Your task to perform on an android device: Go to network settings Image 0: 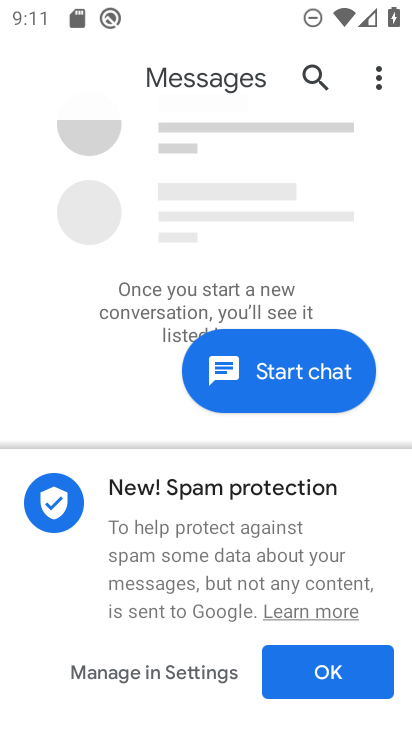
Step 0: press home button
Your task to perform on an android device: Go to network settings Image 1: 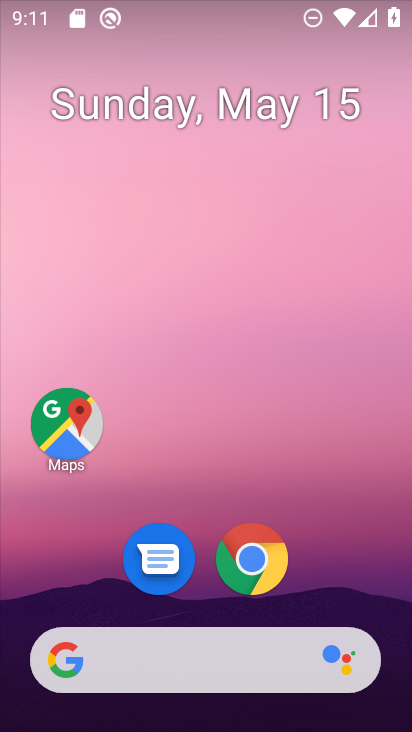
Step 1: drag from (340, 594) to (325, 257)
Your task to perform on an android device: Go to network settings Image 2: 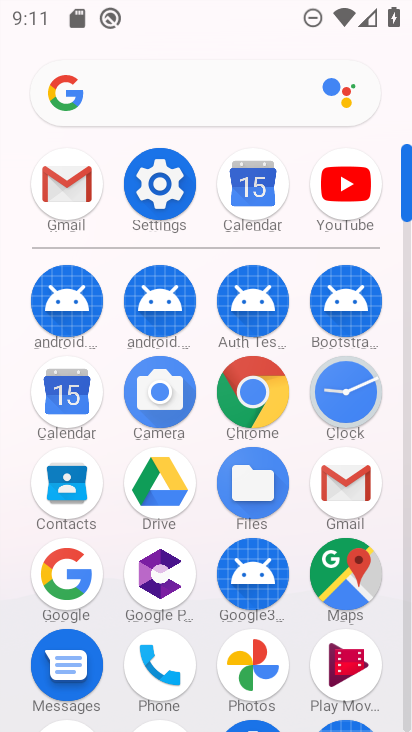
Step 2: click (160, 192)
Your task to perform on an android device: Go to network settings Image 3: 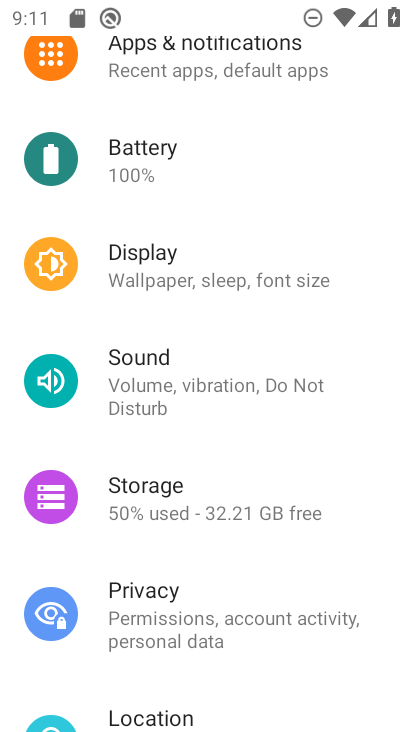
Step 3: drag from (160, 180) to (166, 617)
Your task to perform on an android device: Go to network settings Image 4: 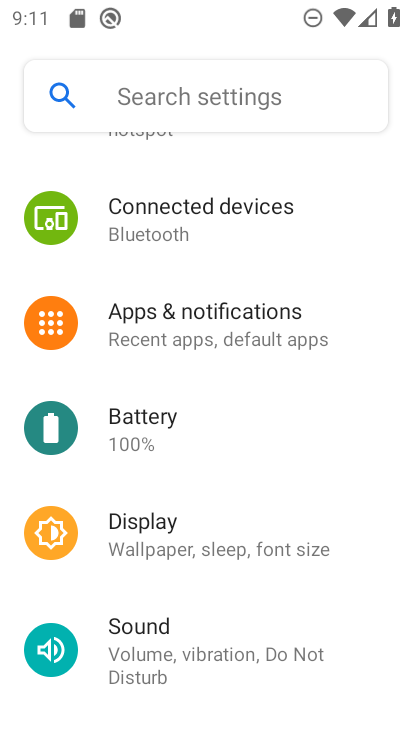
Step 4: drag from (202, 228) to (202, 552)
Your task to perform on an android device: Go to network settings Image 5: 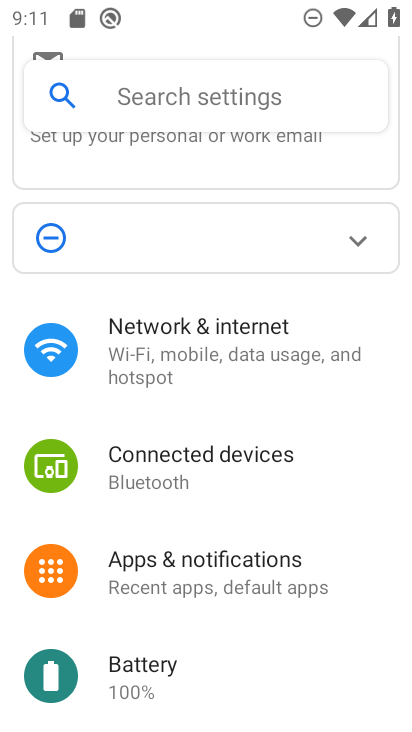
Step 5: click (178, 333)
Your task to perform on an android device: Go to network settings Image 6: 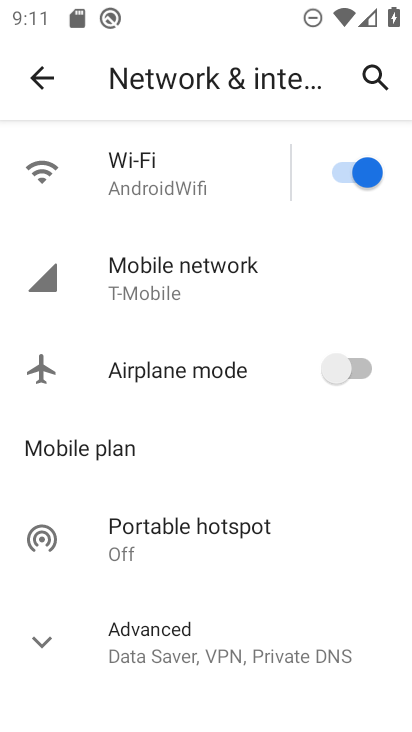
Step 6: task complete